Your task to perform on an android device: change the clock display to show seconds Image 0: 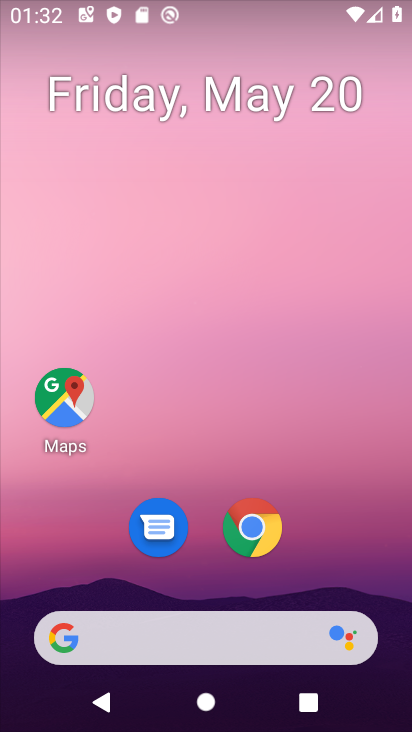
Step 0: press home button
Your task to perform on an android device: change the clock display to show seconds Image 1: 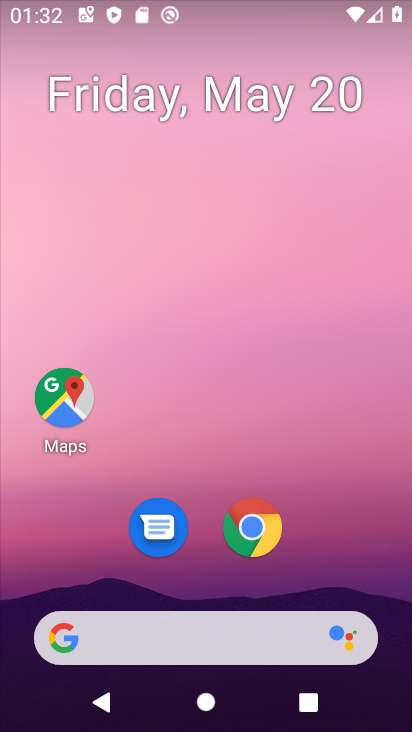
Step 1: drag from (166, 632) to (284, 62)
Your task to perform on an android device: change the clock display to show seconds Image 2: 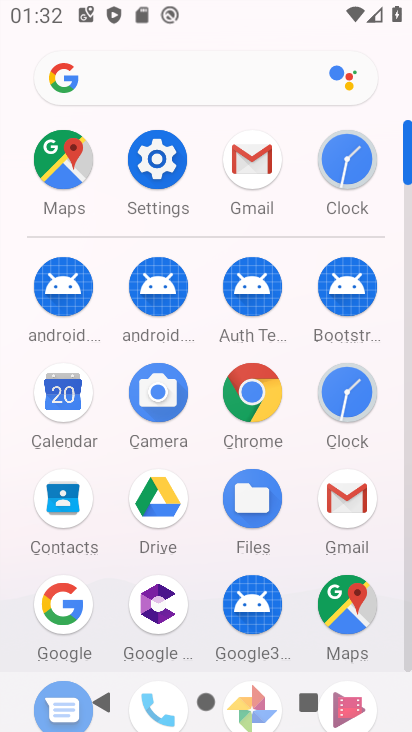
Step 2: click (351, 166)
Your task to perform on an android device: change the clock display to show seconds Image 3: 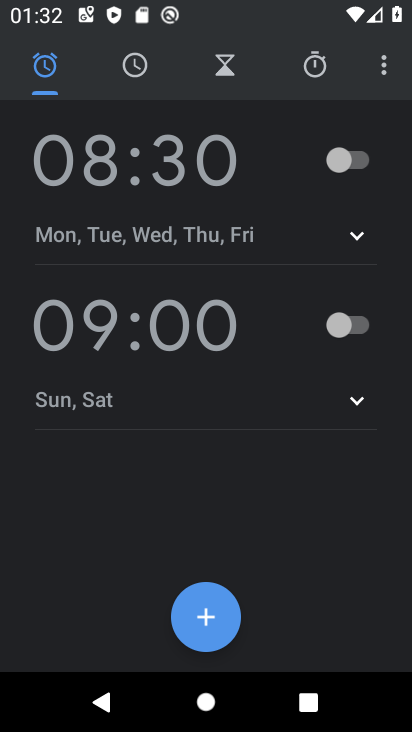
Step 3: click (385, 65)
Your task to perform on an android device: change the clock display to show seconds Image 4: 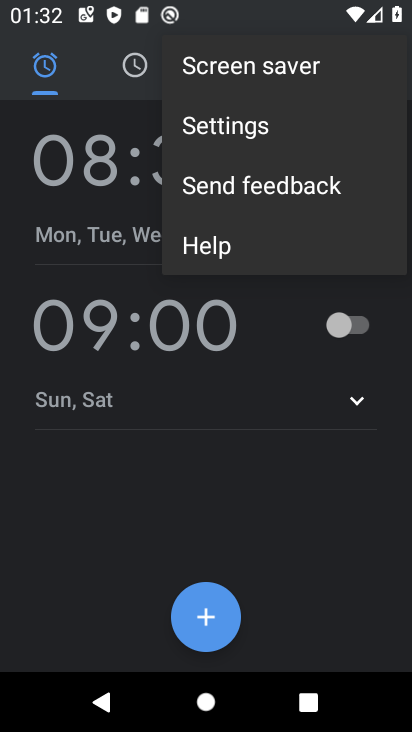
Step 4: click (272, 126)
Your task to perform on an android device: change the clock display to show seconds Image 5: 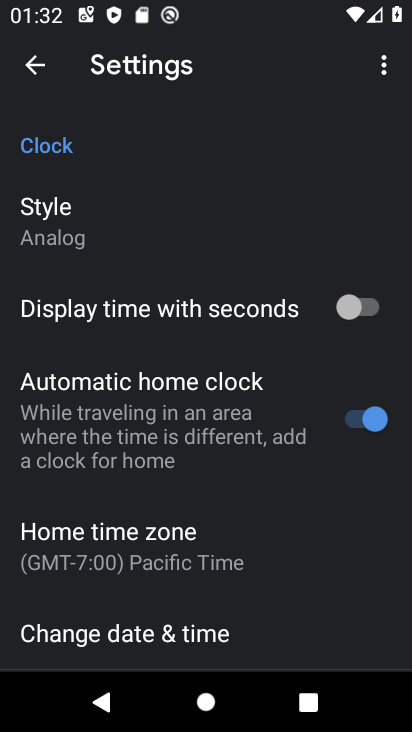
Step 5: click (373, 305)
Your task to perform on an android device: change the clock display to show seconds Image 6: 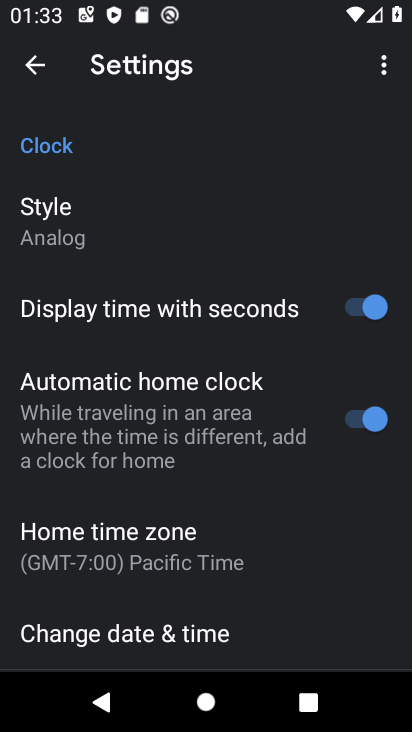
Step 6: task complete